Your task to perform on an android device: Check the news Image 0: 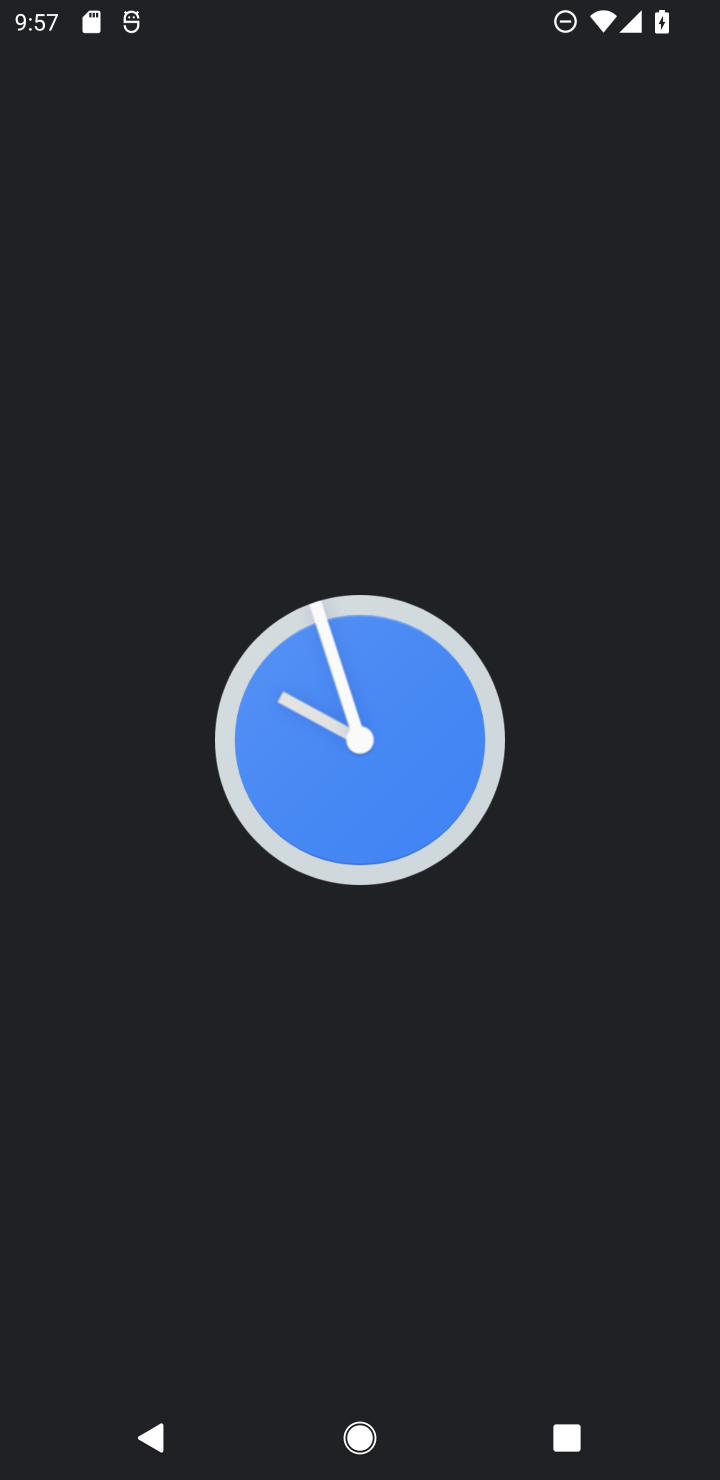
Step 0: press home button
Your task to perform on an android device: Check the news Image 1: 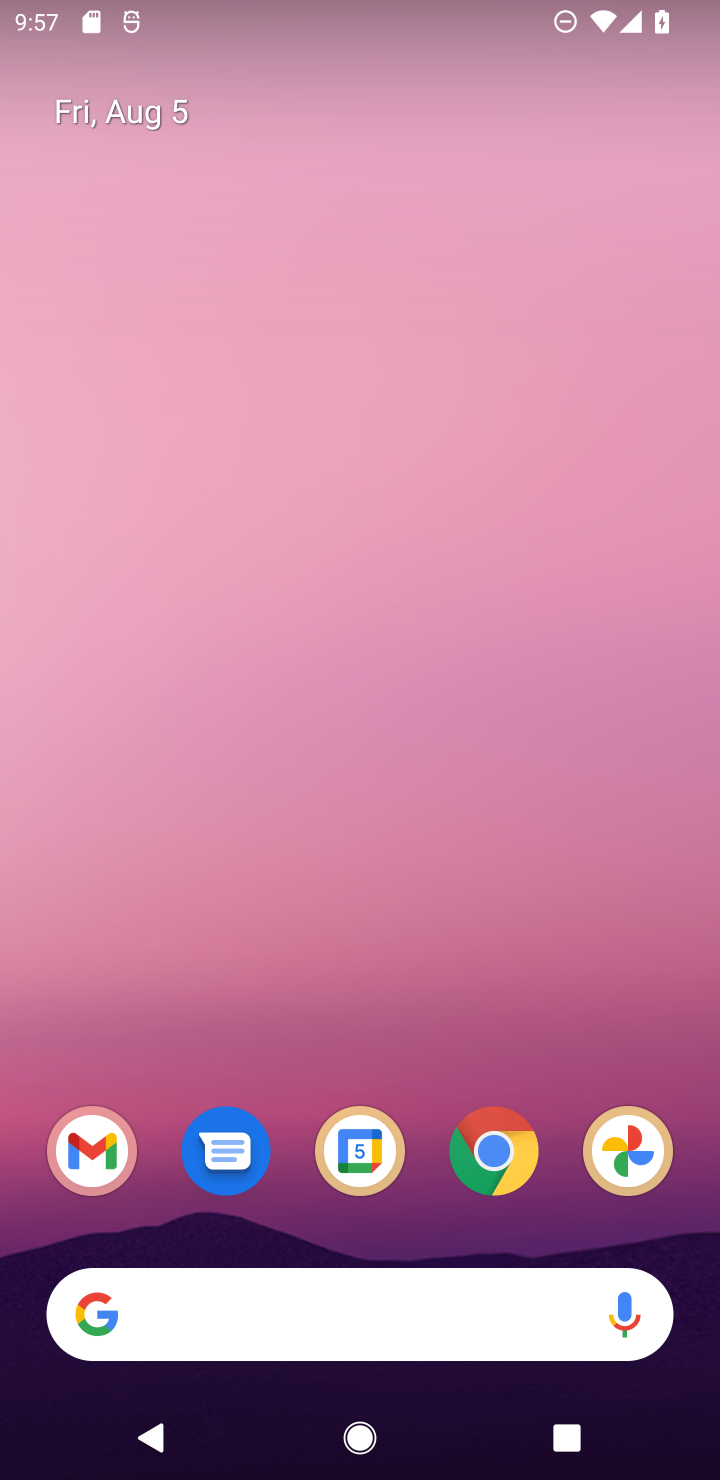
Step 1: click (354, 1278)
Your task to perform on an android device: Check the news Image 2: 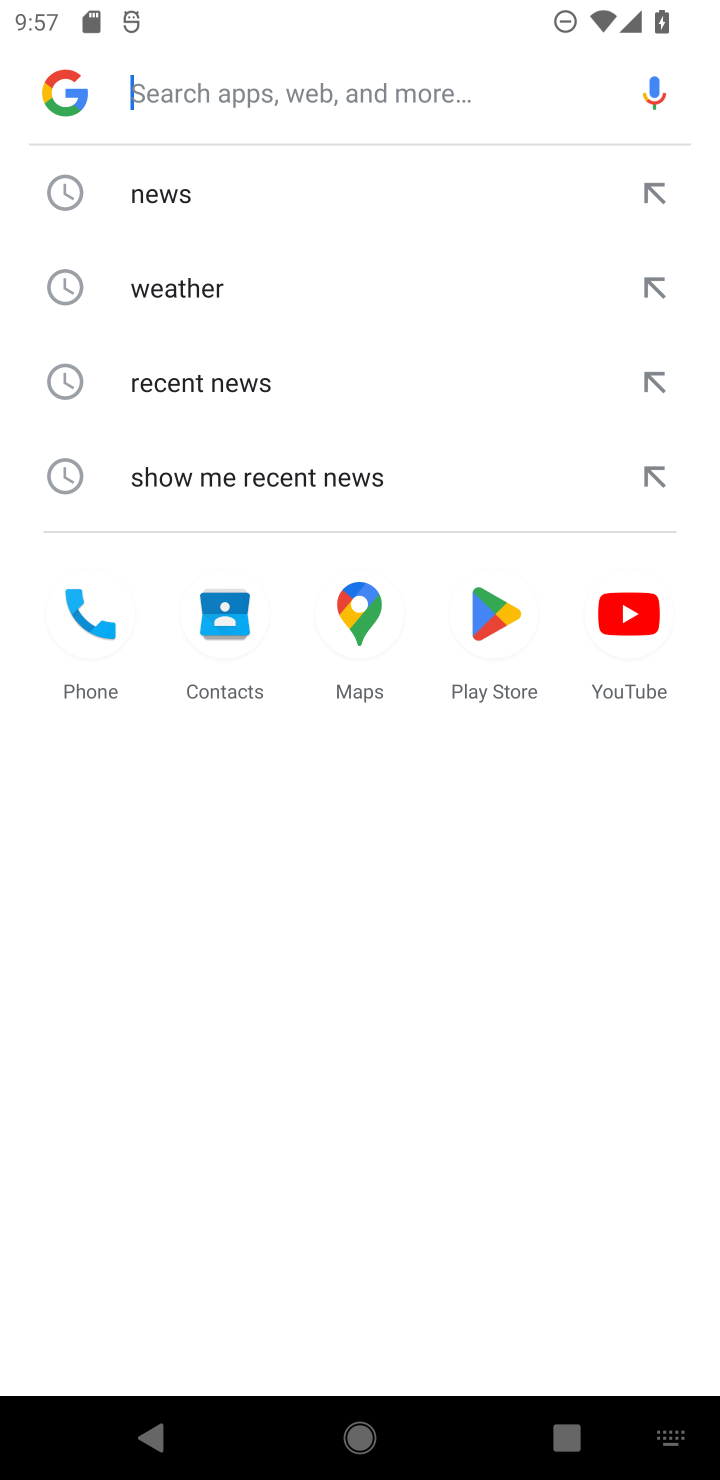
Step 2: click (182, 206)
Your task to perform on an android device: Check the news Image 3: 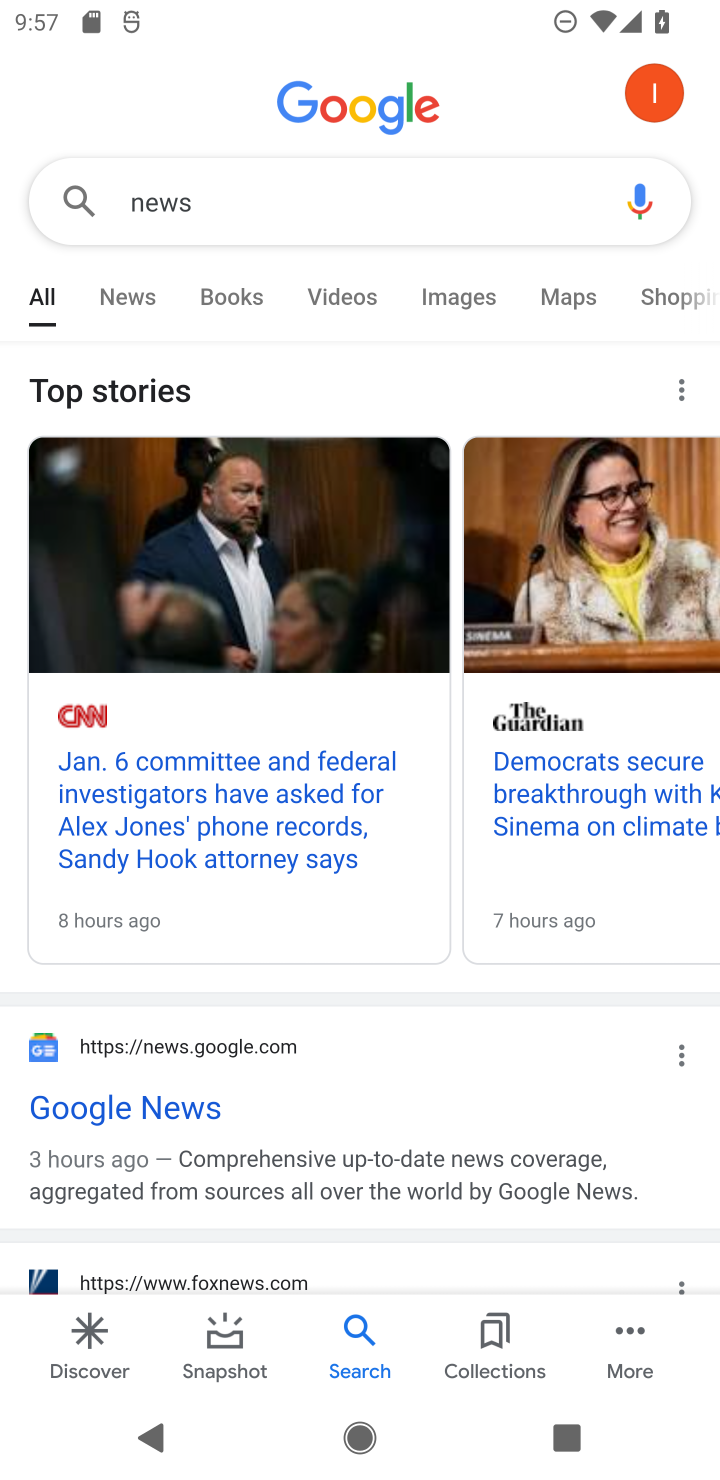
Step 3: task complete